Your task to perform on an android device: Open privacy settings Image 0: 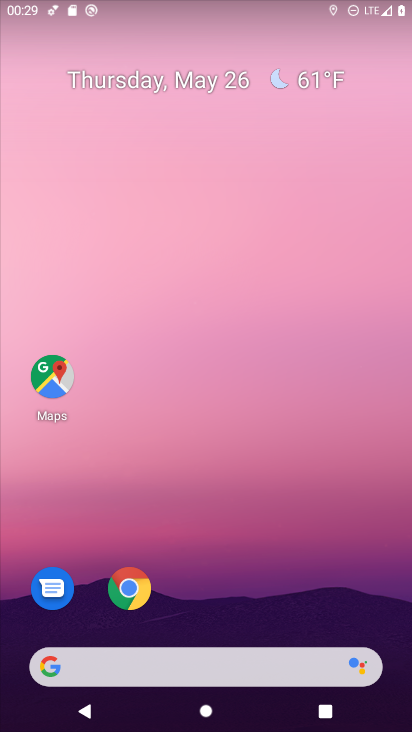
Step 0: drag from (230, 531) to (132, 175)
Your task to perform on an android device: Open privacy settings Image 1: 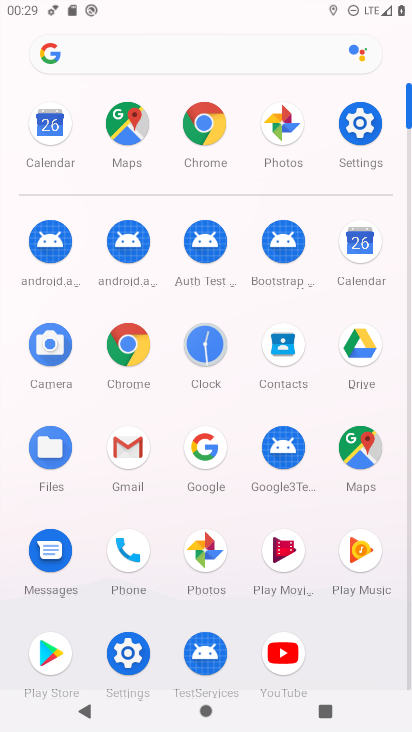
Step 1: click (365, 123)
Your task to perform on an android device: Open privacy settings Image 2: 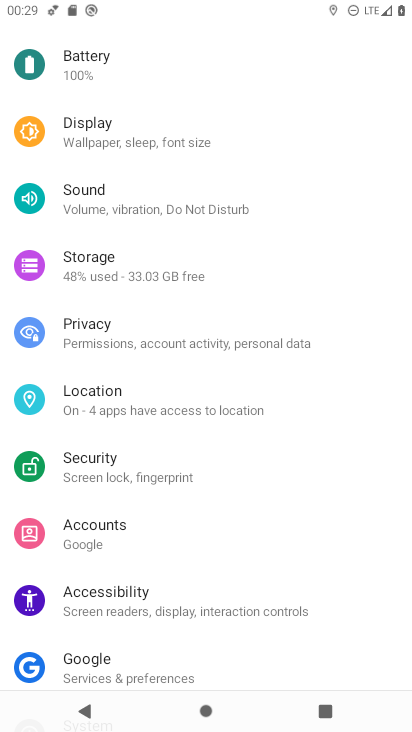
Step 2: click (76, 331)
Your task to perform on an android device: Open privacy settings Image 3: 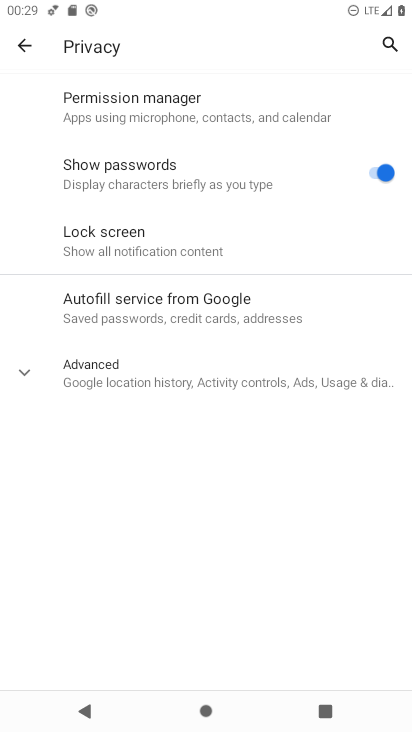
Step 3: task complete